Your task to perform on an android device: visit the assistant section in the google photos Image 0: 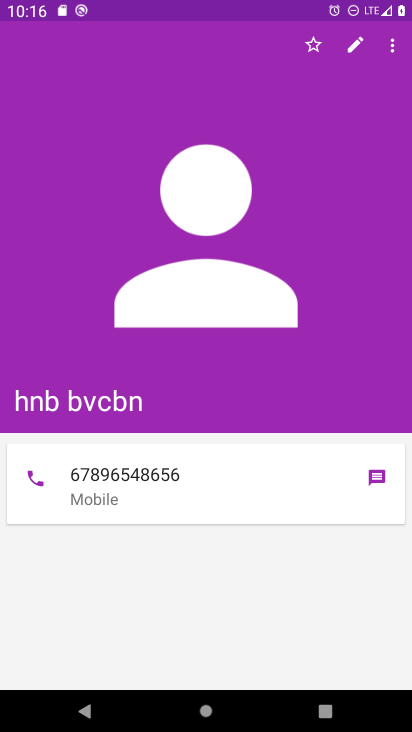
Step 0: press home button
Your task to perform on an android device: visit the assistant section in the google photos Image 1: 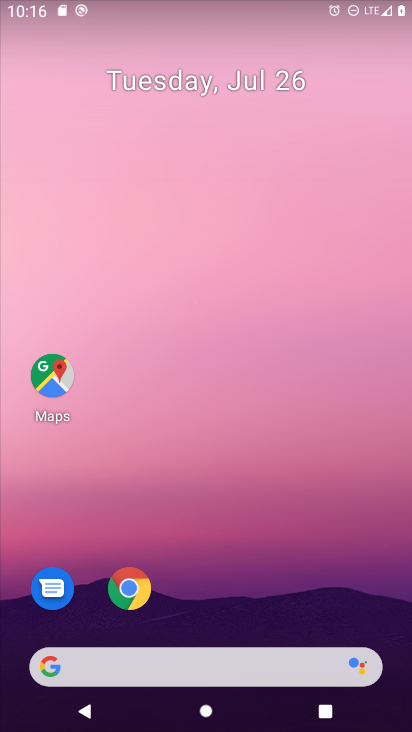
Step 1: drag from (161, 697) to (150, 226)
Your task to perform on an android device: visit the assistant section in the google photos Image 2: 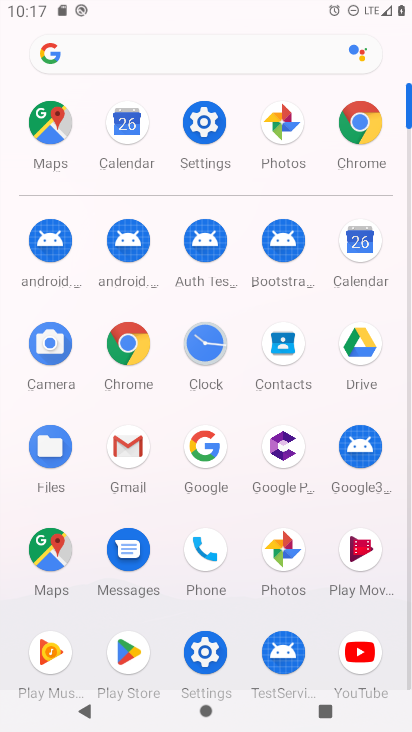
Step 2: click (283, 552)
Your task to perform on an android device: visit the assistant section in the google photos Image 3: 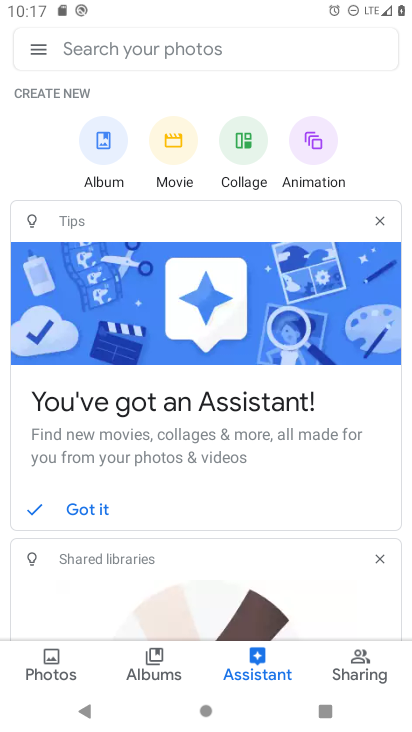
Step 3: click (262, 668)
Your task to perform on an android device: visit the assistant section in the google photos Image 4: 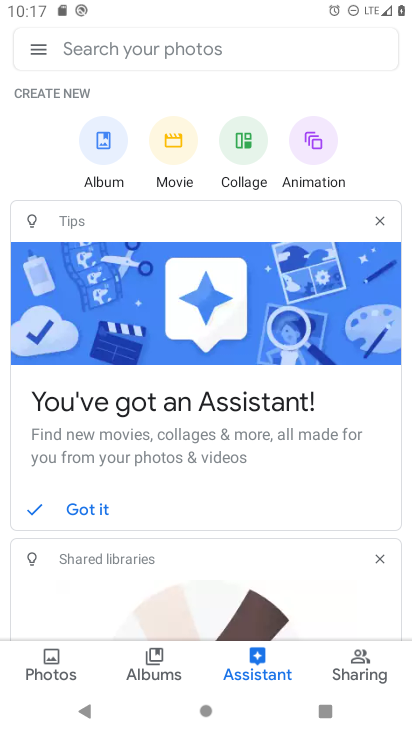
Step 4: task complete